Your task to perform on an android device: add a contact Image 0: 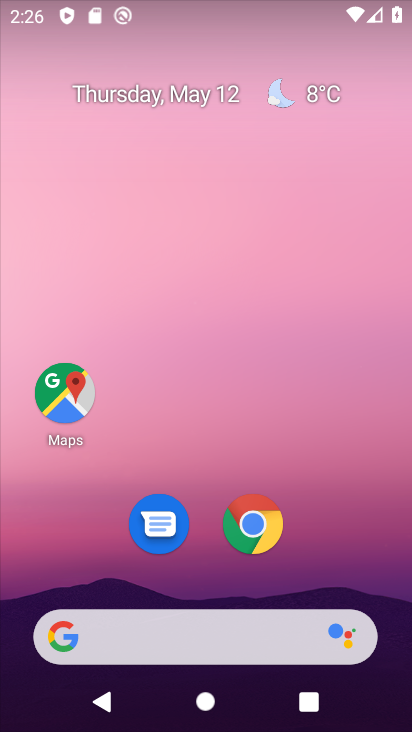
Step 0: drag from (259, 421) to (231, 6)
Your task to perform on an android device: add a contact Image 1: 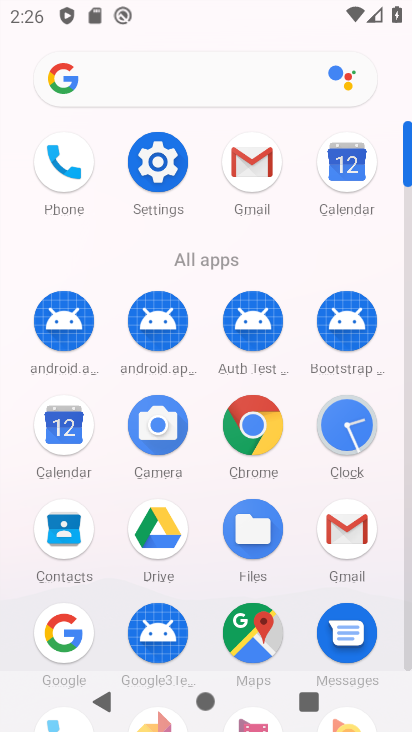
Step 1: drag from (302, 481) to (306, 201)
Your task to perform on an android device: add a contact Image 2: 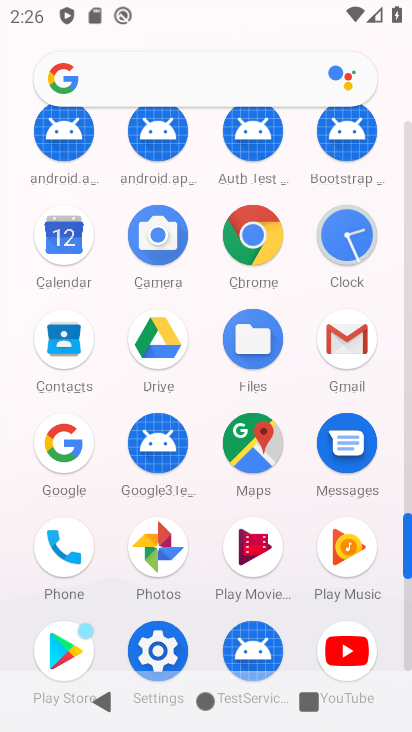
Step 2: click (59, 340)
Your task to perform on an android device: add a contact Image 3: 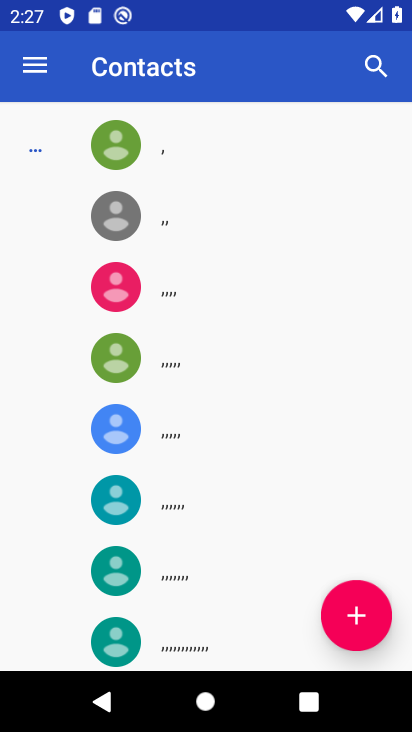
Step 3: click (352, 611)
Your task to perform on an android device: add a contact Image 4: 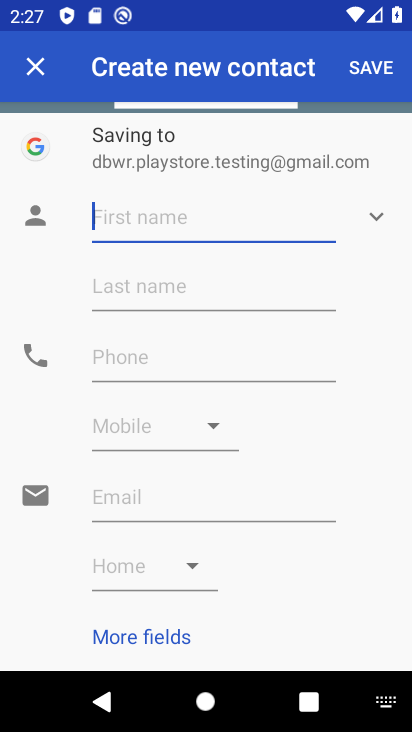
Step 4: type "jamvant"
Your task to perform on an android device: add a contact Image 5: 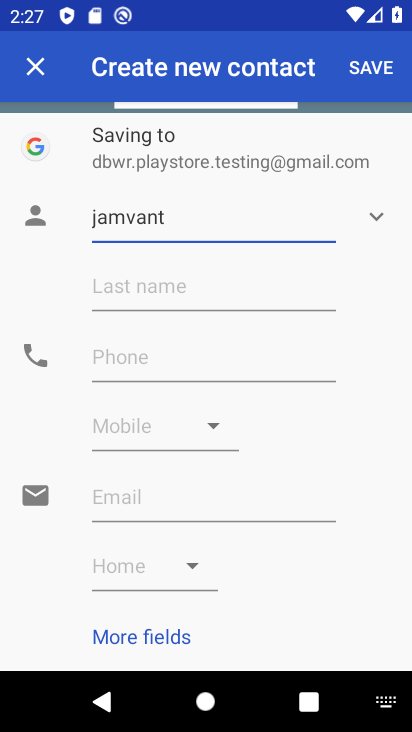
Step 5: click (181, 282)
Your task to perform on an android device: add a contact Image 6: 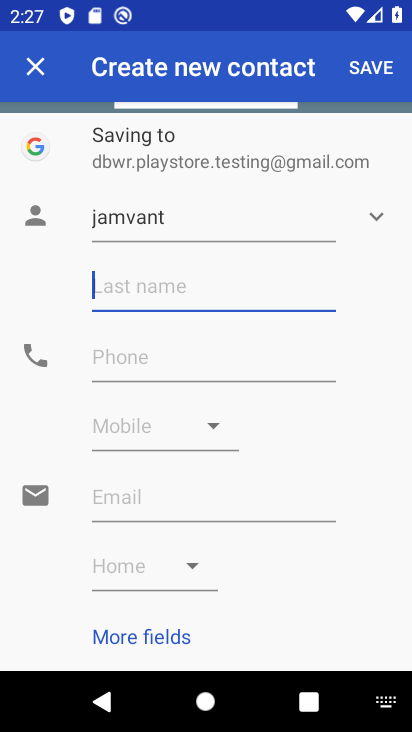
Step 6: type "Sugrwwv"
Your task to perform on an android device: add a contact Image 7: 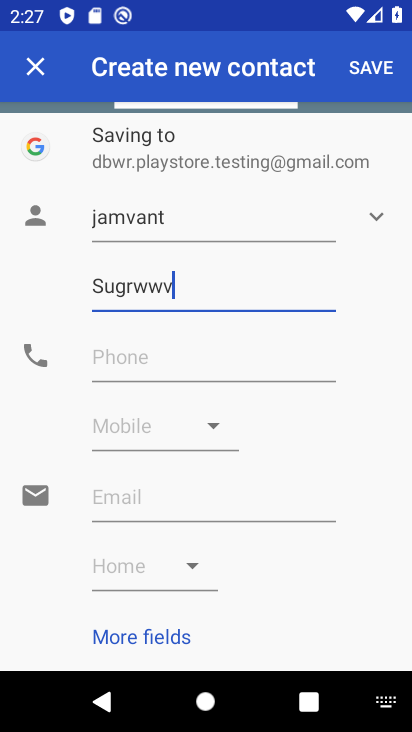
Step 7: drag from (129, 284) to (175, 292)
Your task to perform on an android device: add a contact Image 8: 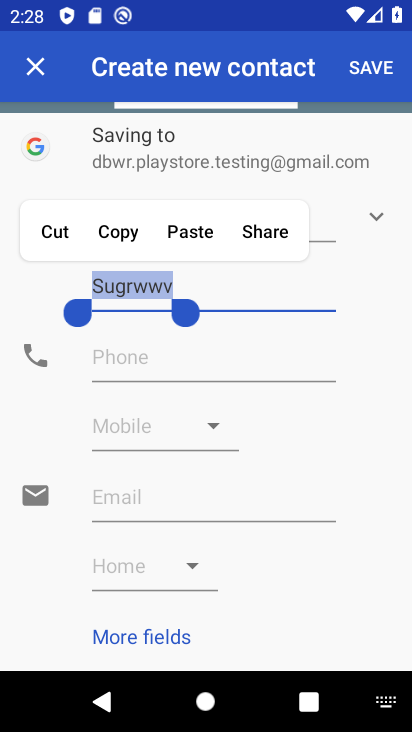
Step 8: click (48, 225)
Your task to perform on an android device: add a contact Image 9: 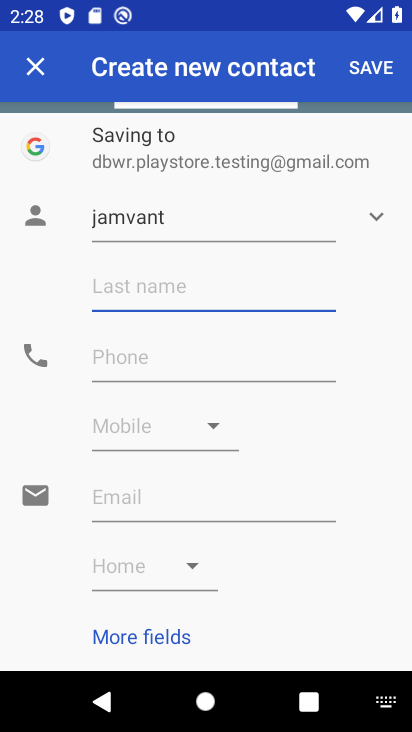
Step 9: type "Sugreev"
Your task to perform on an android device: add a contact Image 10: 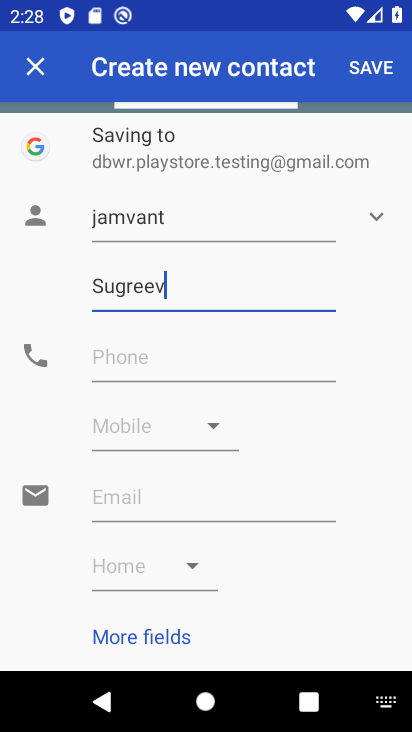
Step 10: click (180, 370)
Your task to perform on an android device: add a contact Image 11: 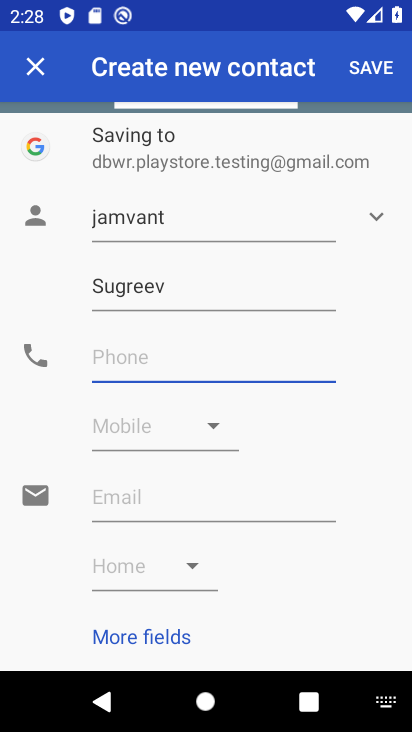
Step 11: type "01122334455"
Your task to perform on an android device: add a contact Image 12: 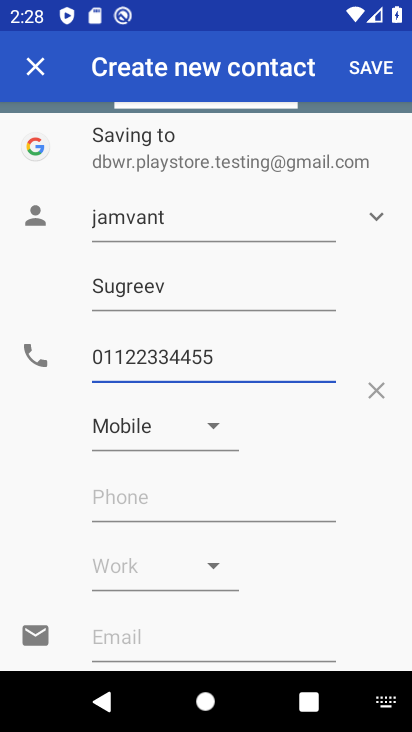
Step 12: click (371, 62)
Your task to perform on an android device: add a contact Image 13: 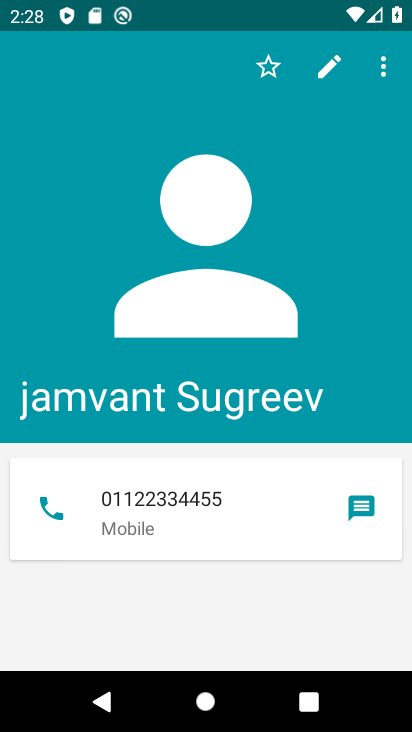
Step 13: task complete